Your task to perform on an android device: change keyboard looks Image 0: 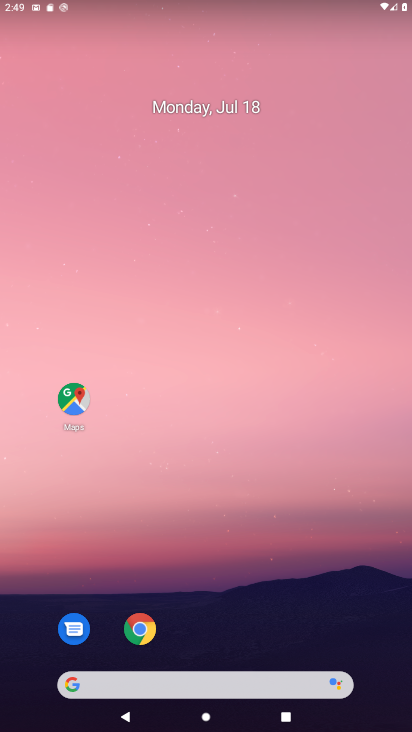
Step 0: drag from (368, 600) to (366, 78)
Your task to perform on an android device: change keyboard looks Image 1: 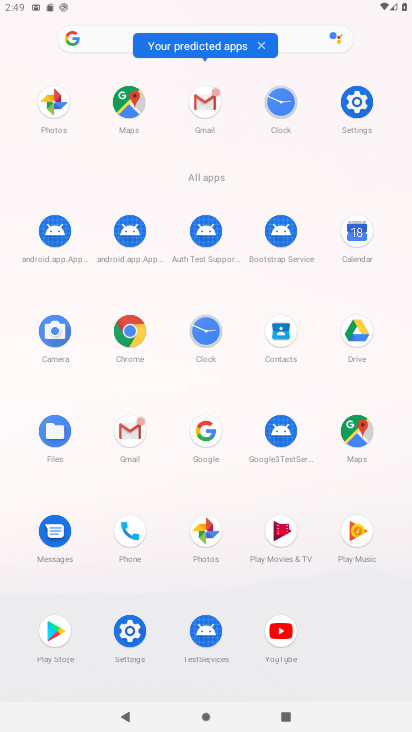
Step 1: click (361, 106)
Your task to perform on an android device: change keyboard looks Image 2: 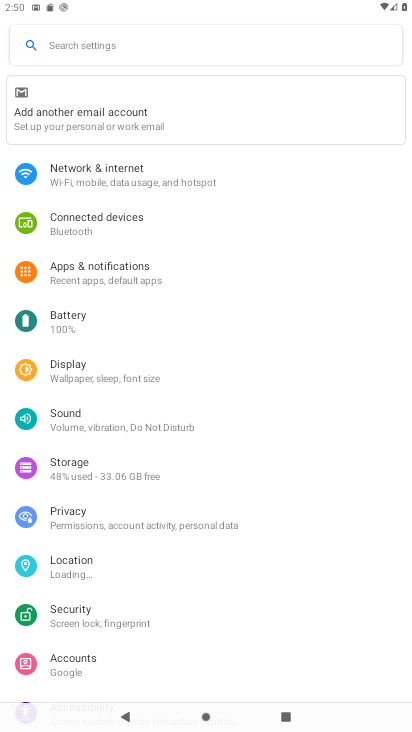
Step 2: drag from (328, 549) to (335, 446)
Your task to perform on an android device: change keyboard looks Image 3: 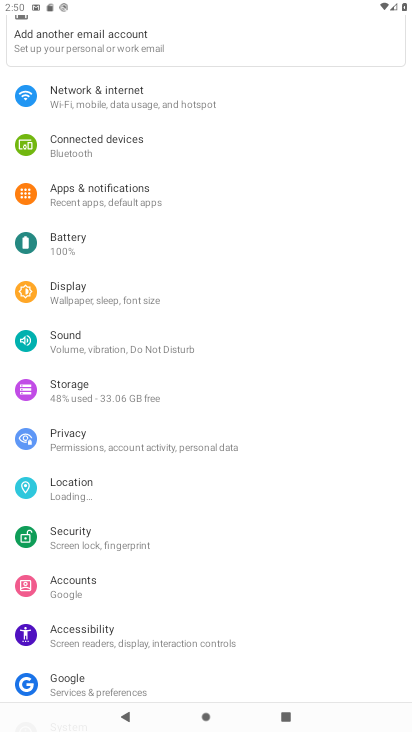
Step 3: drag from (340, 502) to (340, 392)
Your task to perform on an android device: change keyboard looks Image 4: 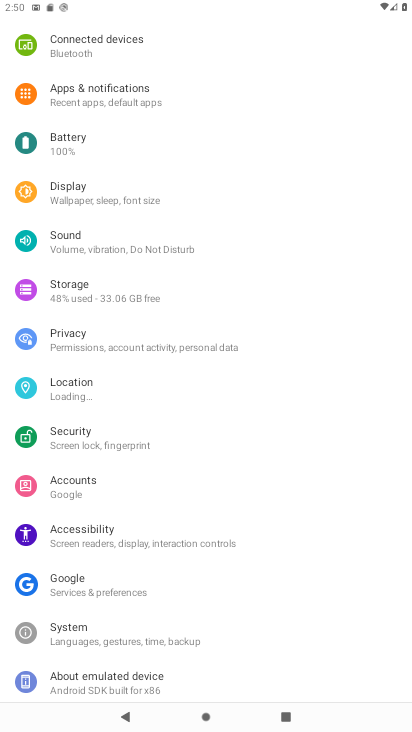
Step 4: drag from (336, 509) to (339, 397)
Your task to perform on an android device: change keyboard looks Image 5: 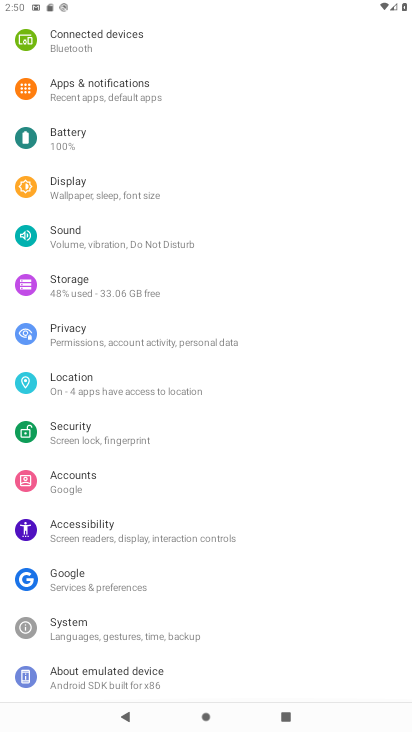
Step 5: click (213, 628)
Your task to perform on an android device: change keyboard looks Image 6: 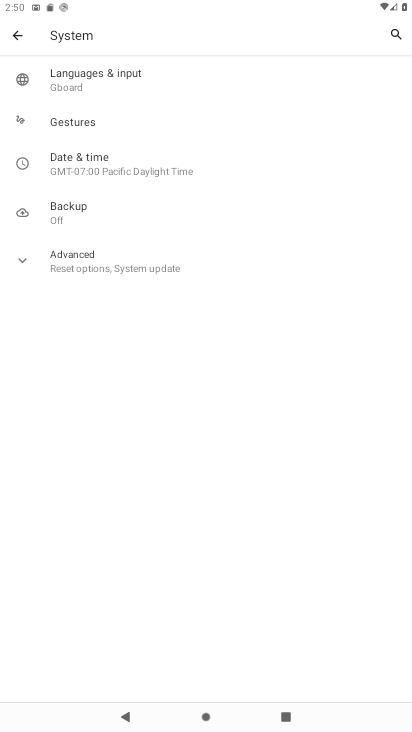
Step 6: click (133, 73)
Your task to perform on an android device: change keyboard looks Image 7: 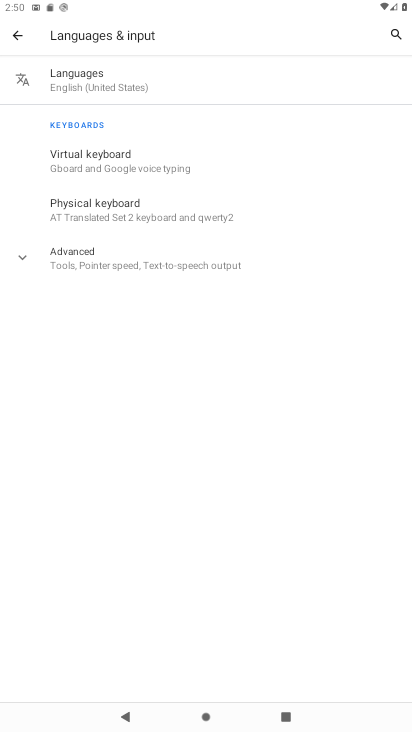
Step 7: click (156, 173)
Your task to perform on an android device: change keyboard looks Image 8: 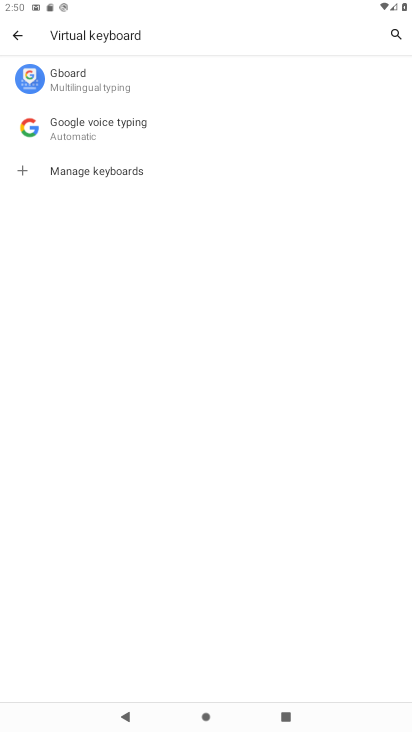
Step 8: click (96, 88)
Your task to perform on an android device: change keyboard looks Image 9: 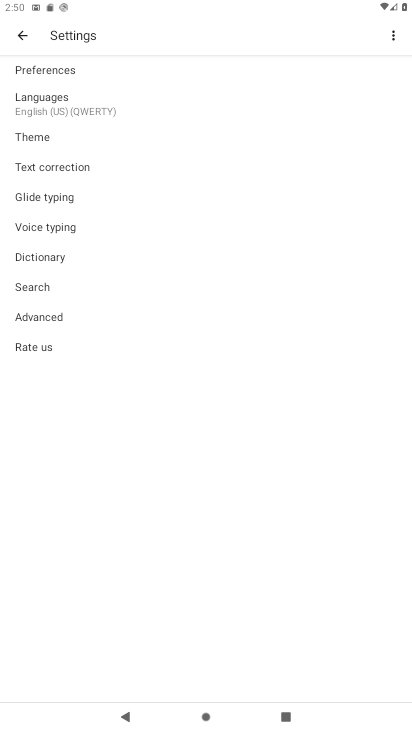
Step 9: click (97, 141)
Your task to perform on an android device: change keyboard looks Image 10: 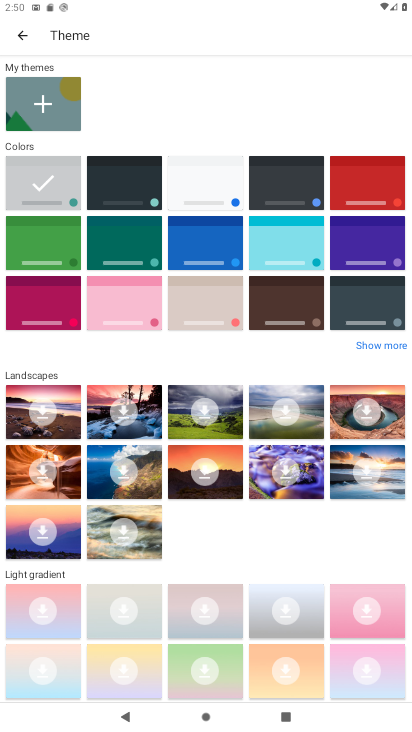
Step 10: click (194, 243)
Your task to perform on an android device: change keyboard looks Image 11: 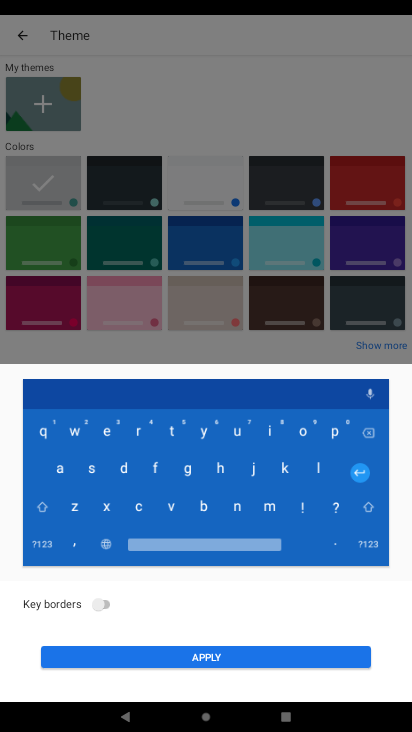
Step 11: click (270, 653)
Your task to perform on an android device: change keyboard looks Image 12: 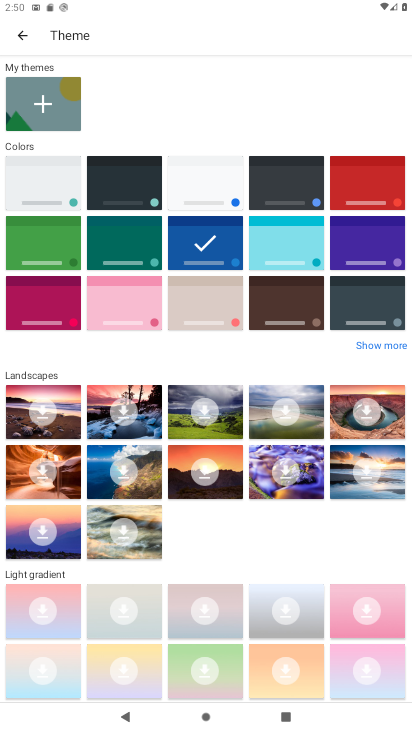
Step 12: task complete